Your task to perform on an android device: turn off notifications in google photos Image 0: 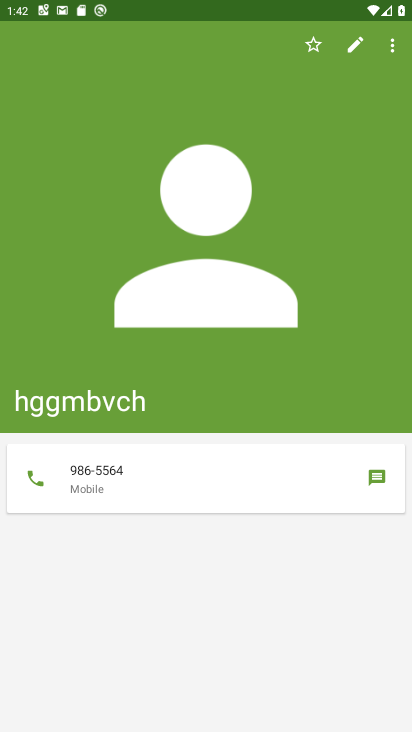
Step 0: press home button
Your task to perform on an android device: turn off notifications in google photos Image 1: 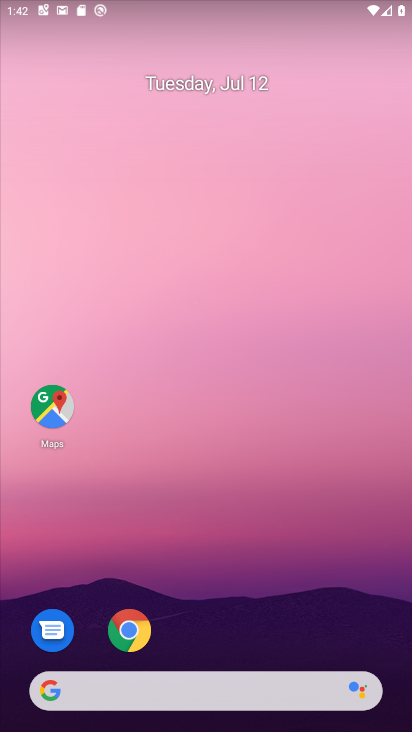
Step 1: drag from (250, 589) to (296, 0)
Your task to perform on an android device: turn off notifications in google photos Image 2: 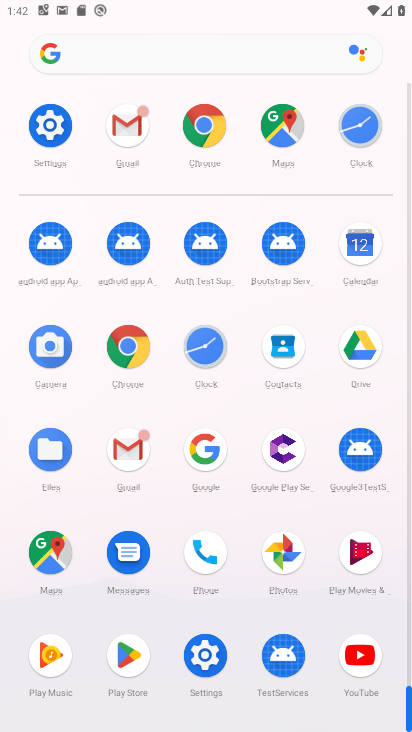
Step 2: click (291, 564)
Your task to perform on an android device: turn off notifications in google photos Image 3: 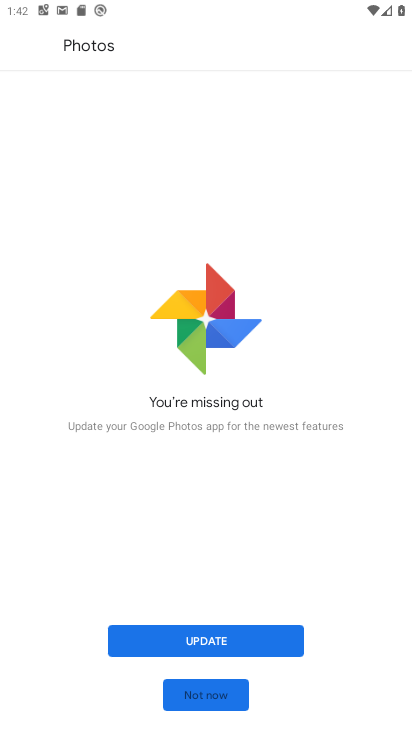
Step 3: click (219, 708)
Your task to perform on an android device: turn off notifications in google photos Image 4: 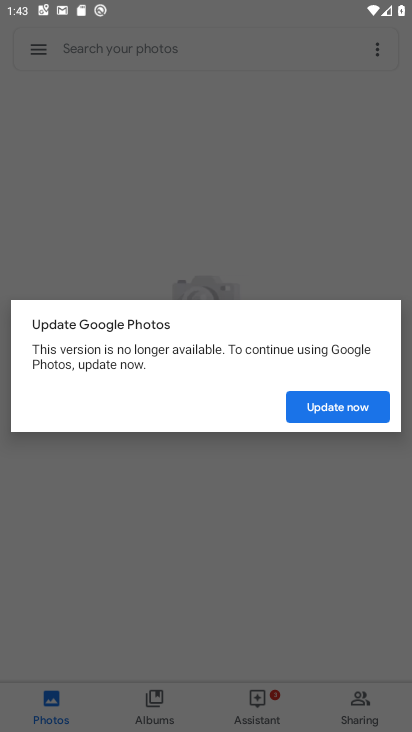
Step 4: task complete